Your task to perform on an android device: open app "Yahoo Mail" (install if not already installed) Image 0: 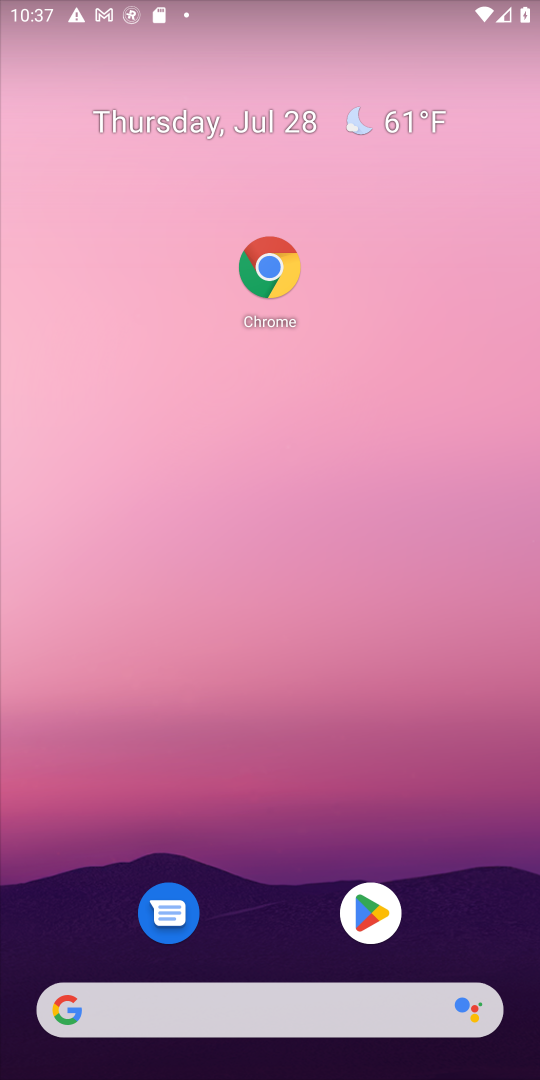
Step 0: click (373, 916)
Your task to perform on an android device: open app "Yahoo Mail" (install if not already installed) Image 1: 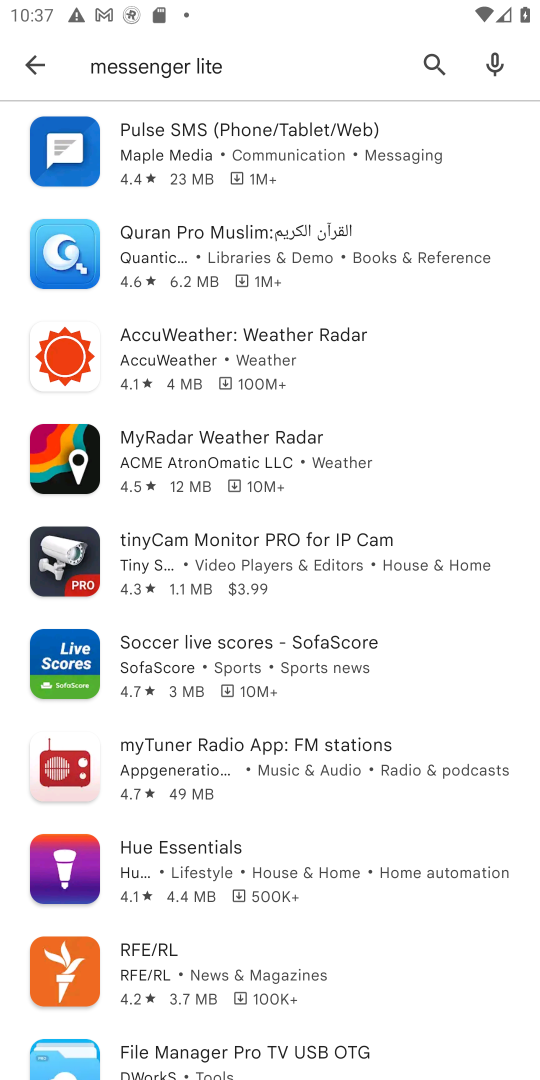
Step 1: click (425, 66)
Your task to perform on an android device: open app "Yahoo Mail" (install if not already installed) Image 2: 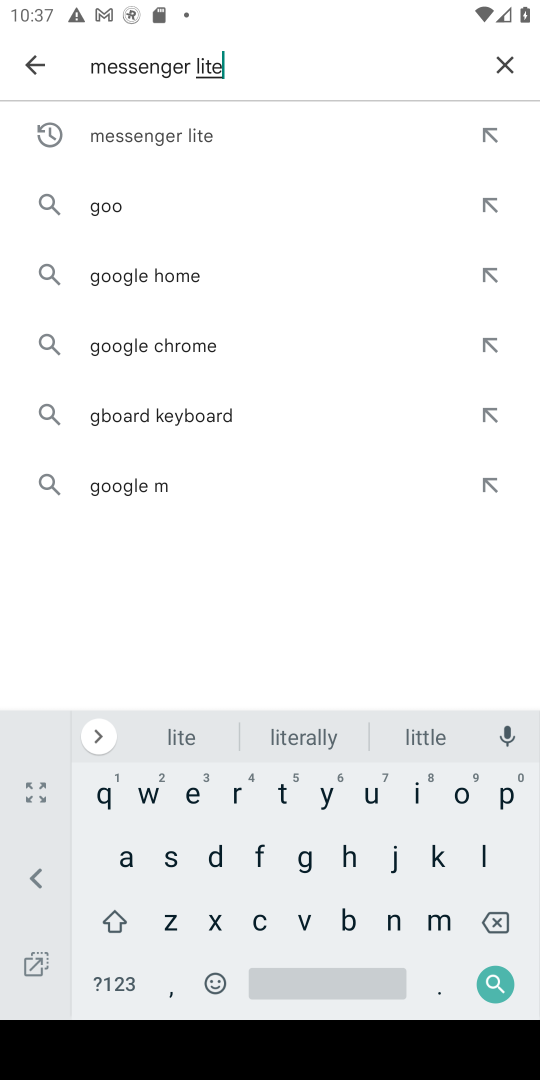
Step 2: click (497, 68)
Your task to perform on an android device: open app "Yahoo Mail" (install if not already installed) Image 3: 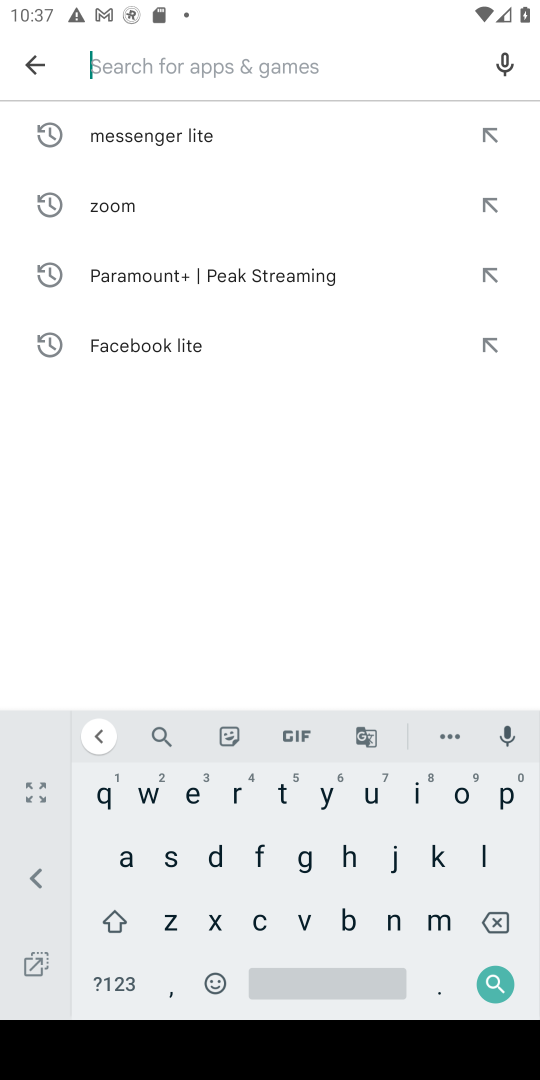
Step 3: type "yahoo mail"
Your task to perform on an android device: open app "Yahoo Mail" (install if not already installed) Image 4: 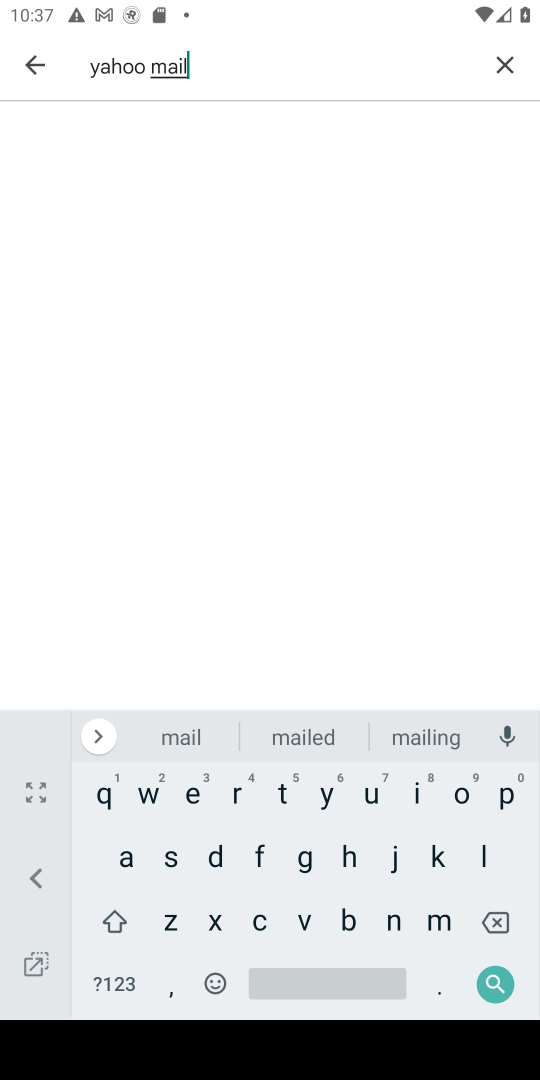
Step 4: click (492, 981)
Your task to perform on an android device: open app "Yahoo Mail" (install if not already installed) Image 5: 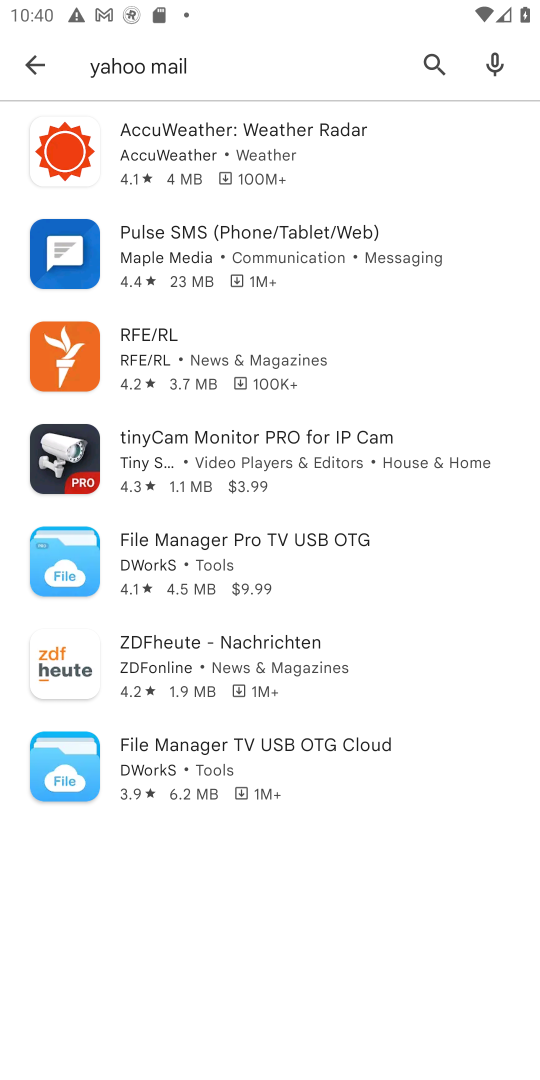
Step 5: task complete